Your task to perform on an android device: turn off data saver in the chrome app Image 0: 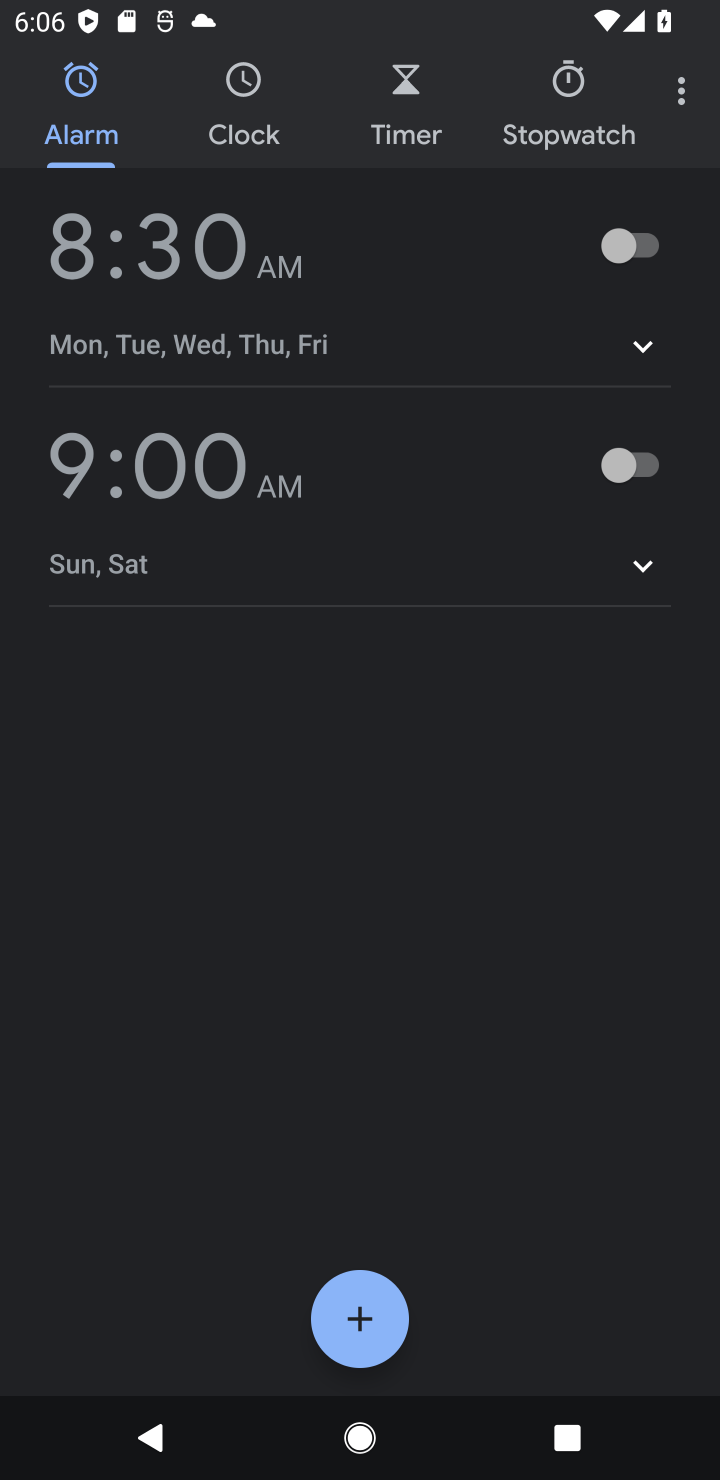
Step 0: press home button
Your task to perform on an android device: turn off data saver in the chrome app Image 1: 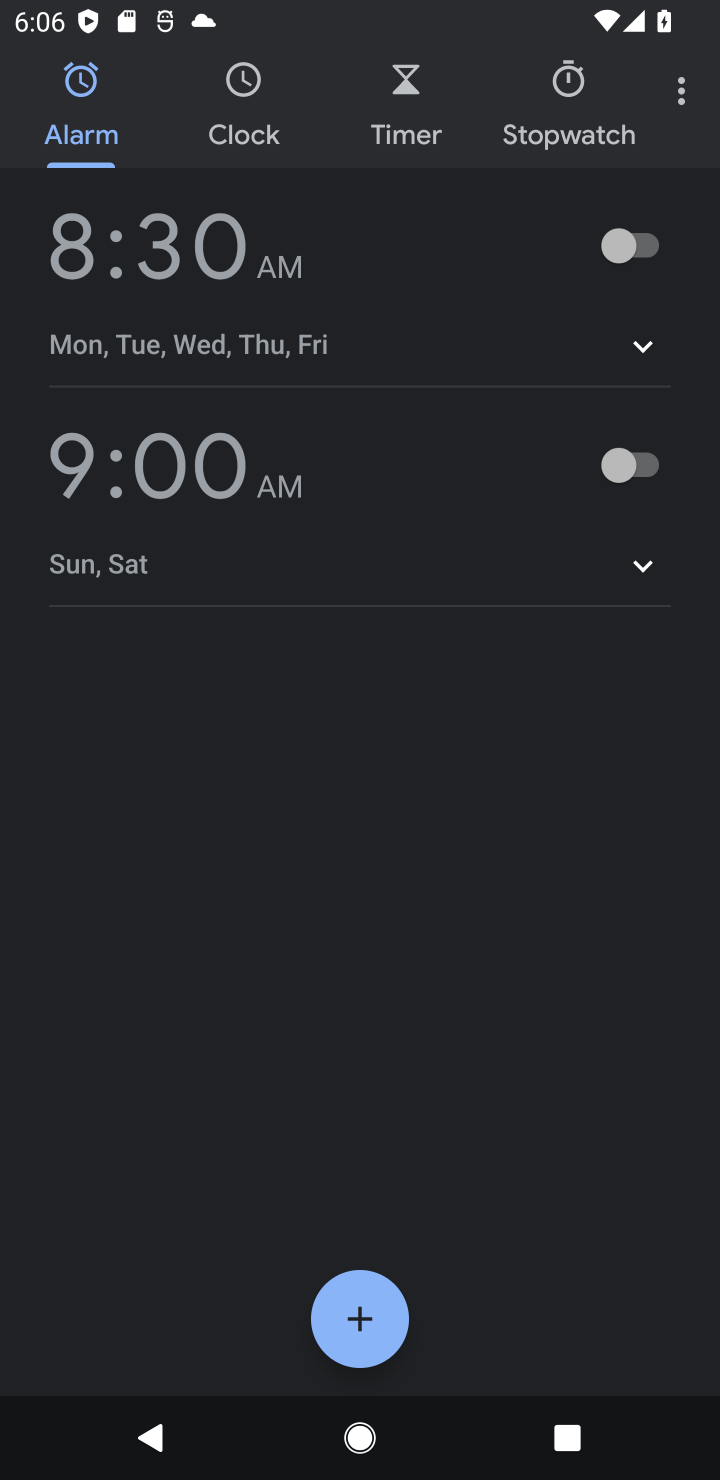
Step 1: press home button
Your task to perform on an android device: turn off data saver in the chrome app Image 2: 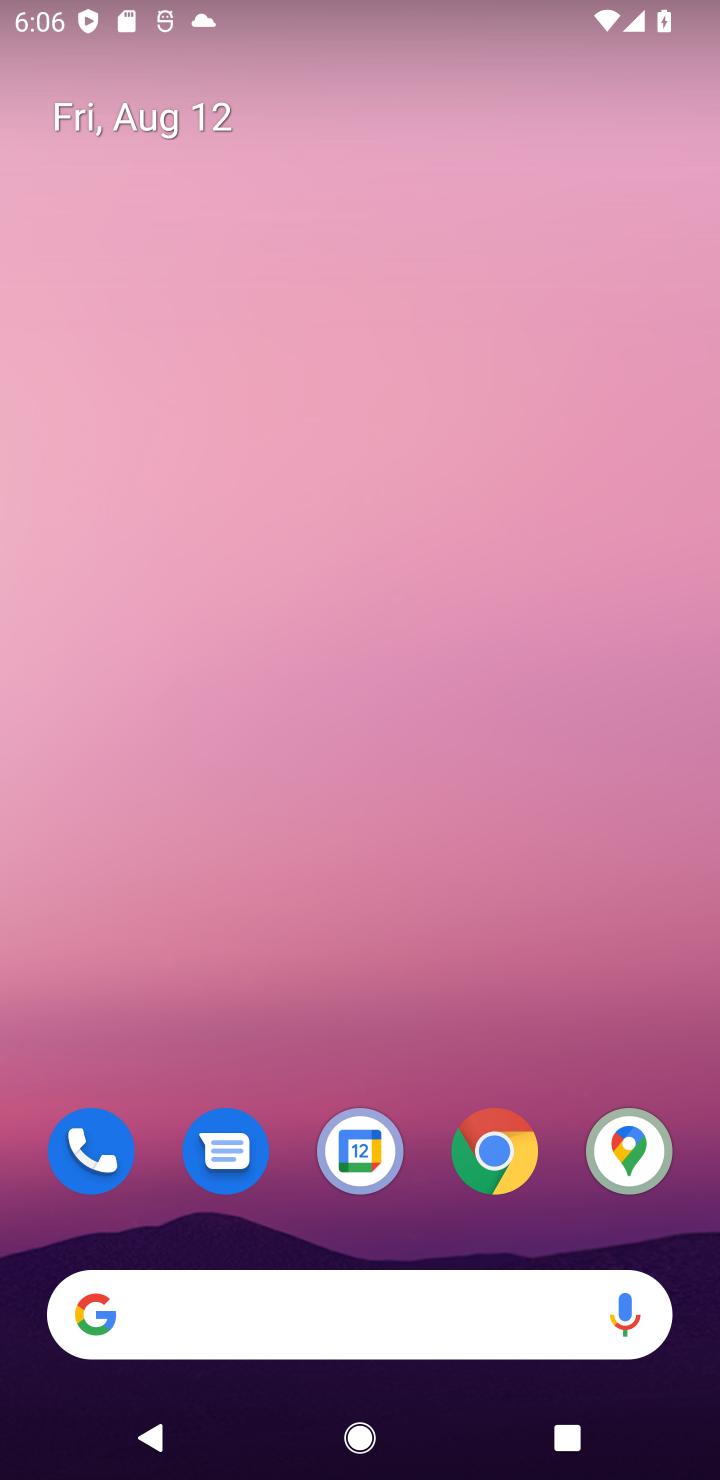
Step 2: drag from (467, 1044) to (605, 254)
Your task to perform on an android device: turn off data saver in the chrome app Image 3: 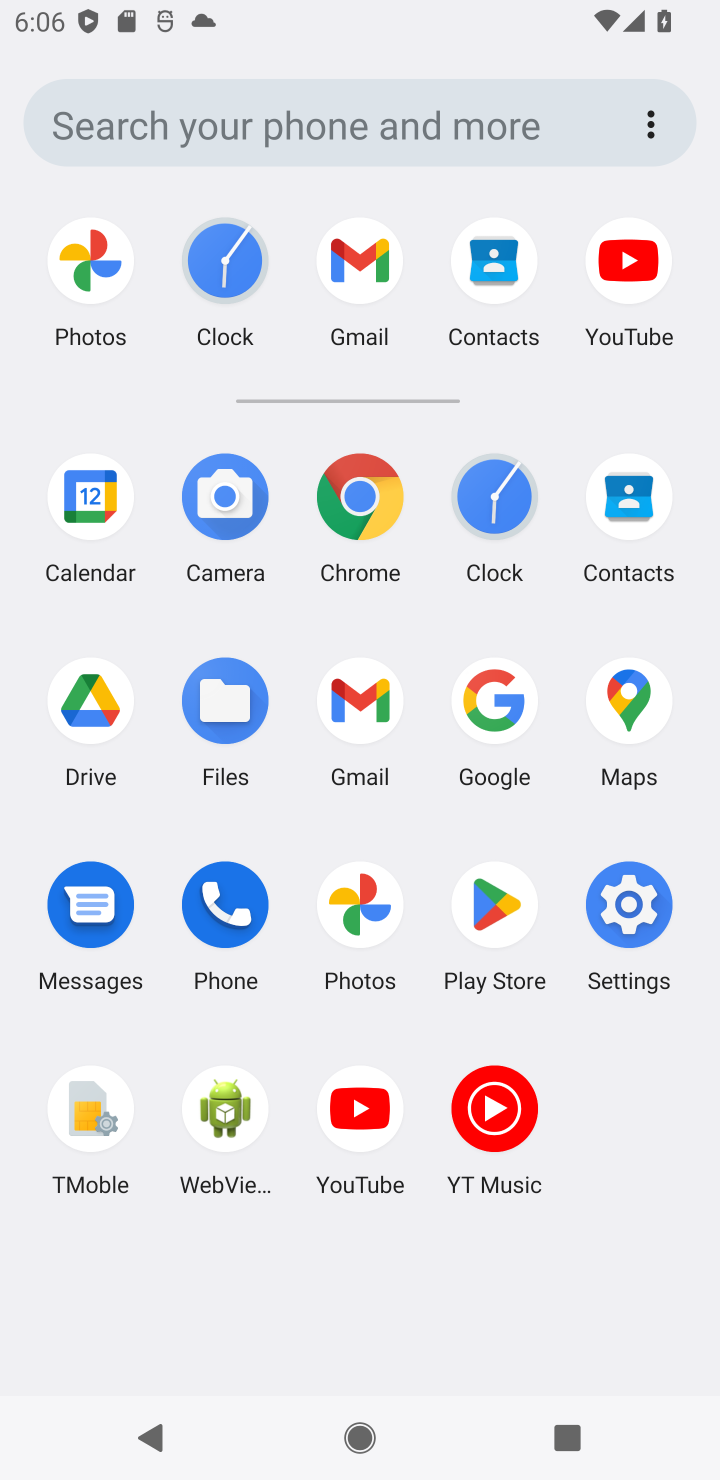
Step 3: click (359, 495)
Your task to perform on an android device: turn off data saver in the chrome app Image 4: 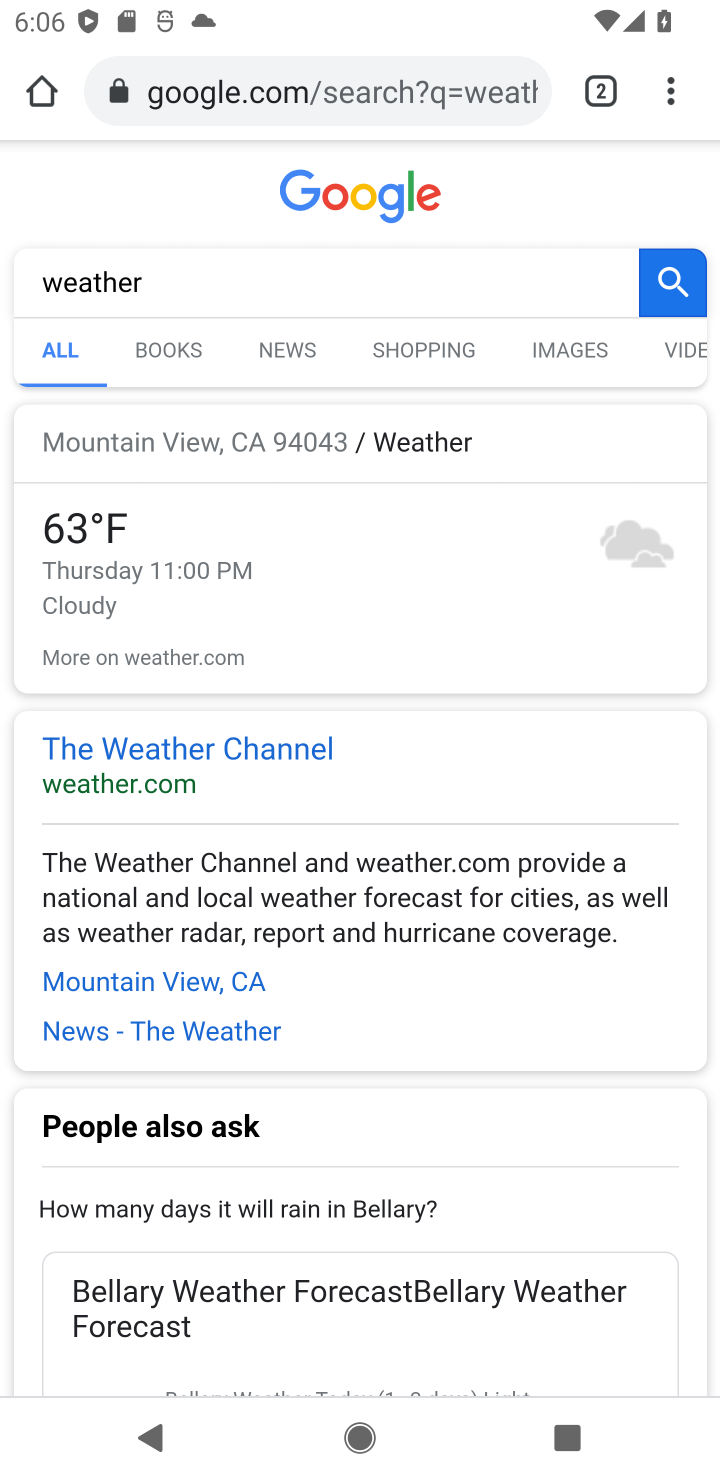
Step 4: drag from (683, 93) to (388, 1244)
Your task to perform on an android device: turn off data saver in the chrome app Image 5: 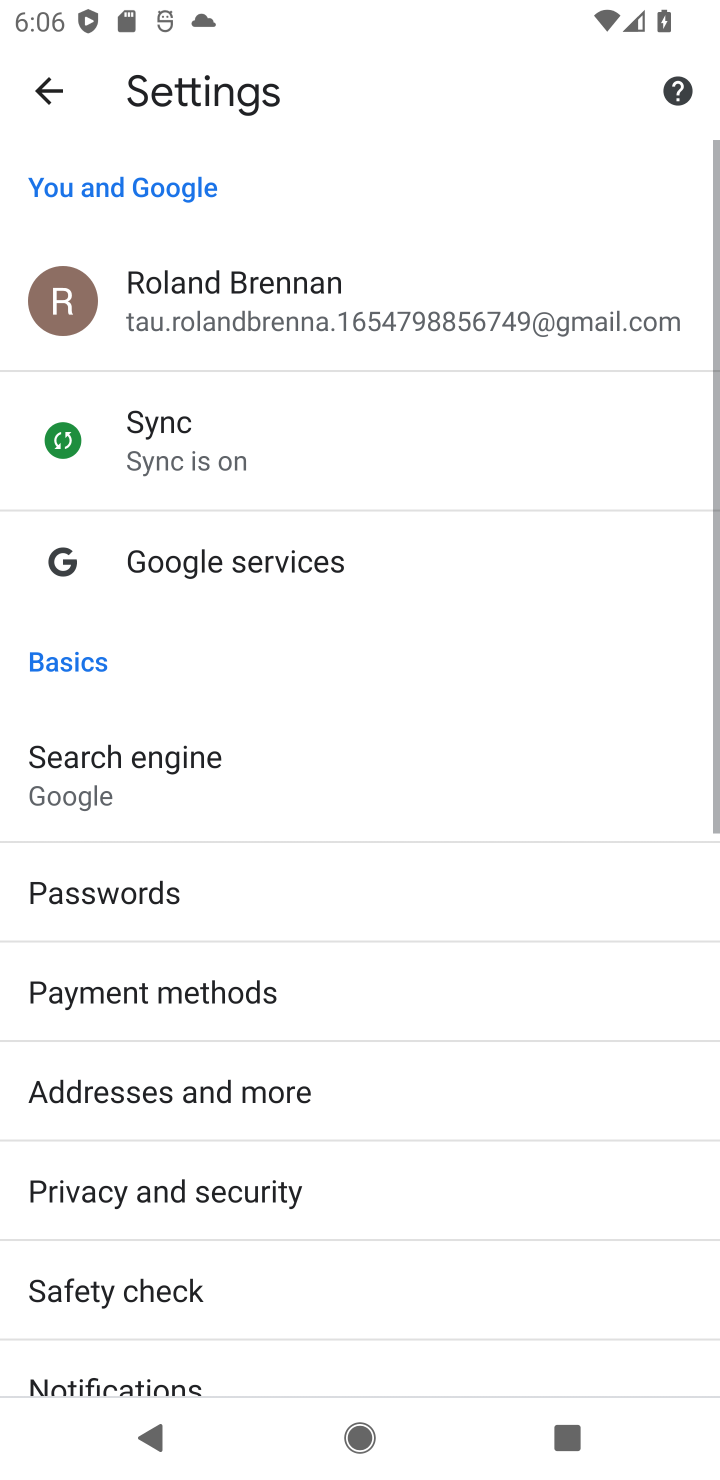
Step 5: drag from (388, 1243) to (549, 342)
Your task to perform on an android device: turn off data saver in the chrome app Image 6: 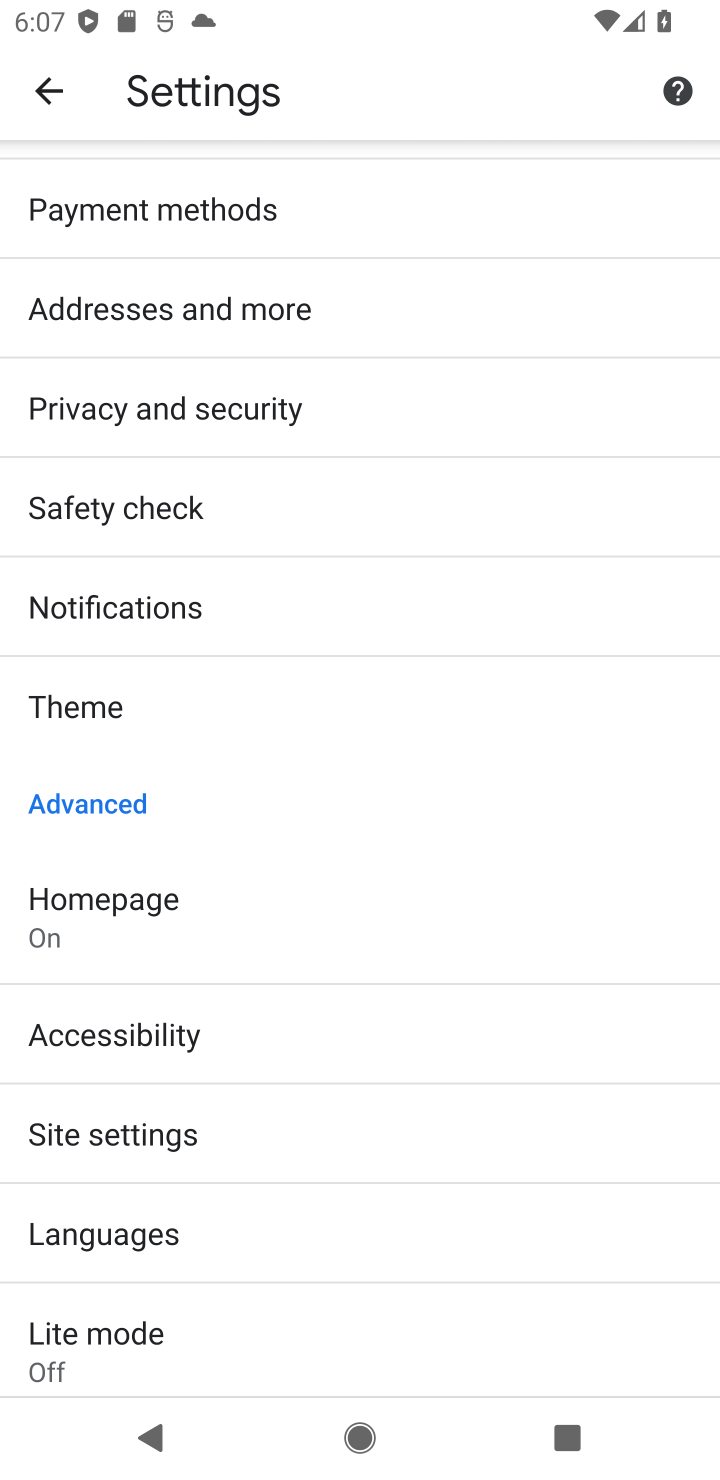
Step 6: click (111, 1350)
Your task to perform on an android device: turn off data saver in the chrome app Image 7: 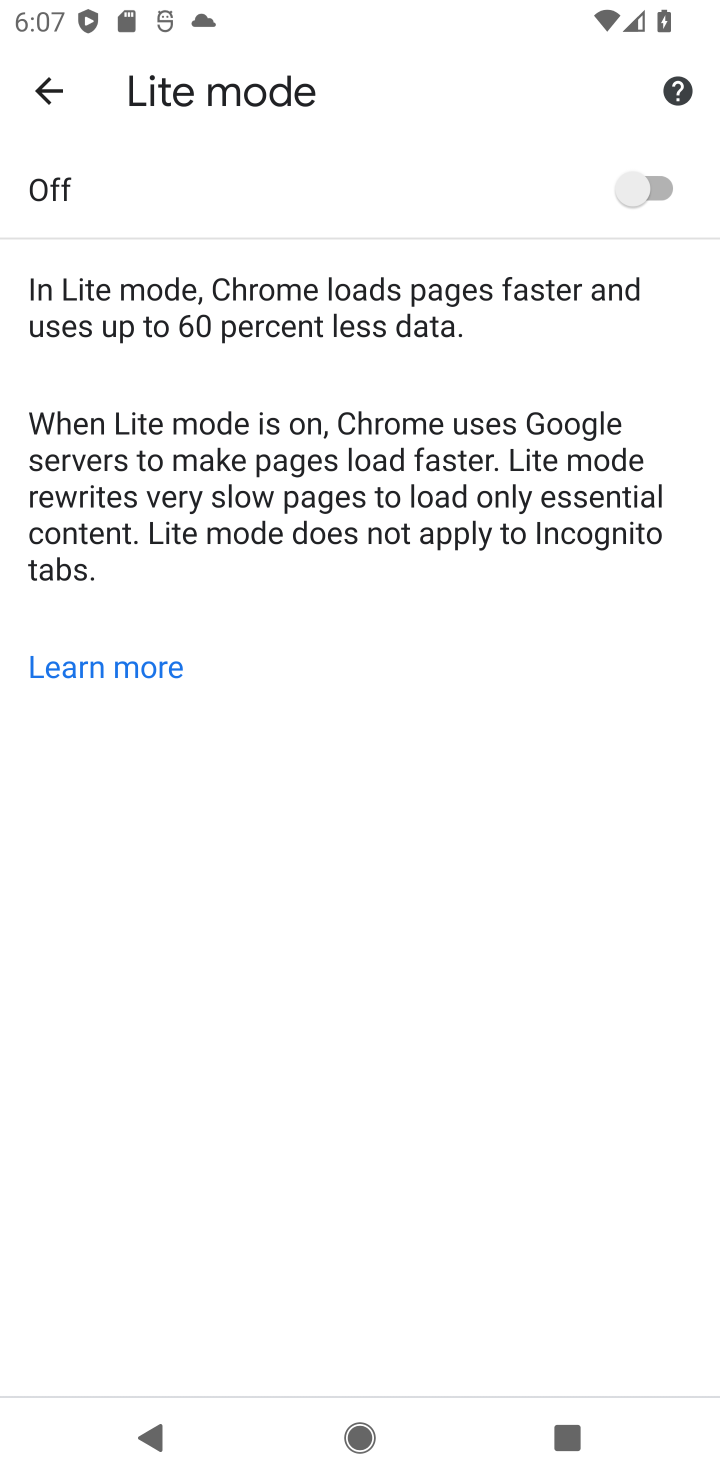
Step 7: task complete